Your task to perform on an android device: Go to Google maps Image 0: 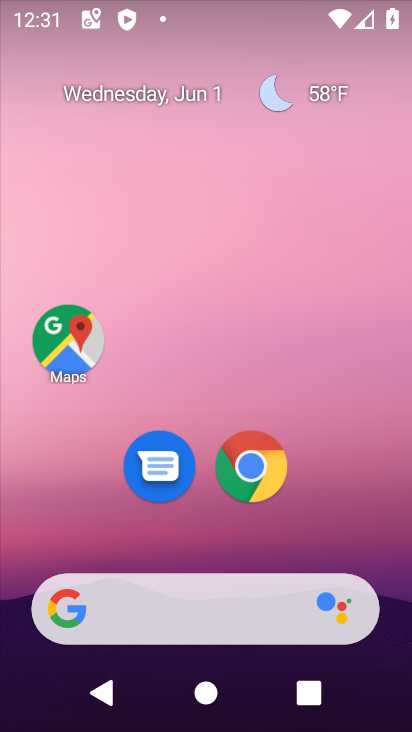
Step 0: click (86, 332)
Your task to perform on an android device: Go to Google maps Image 1: 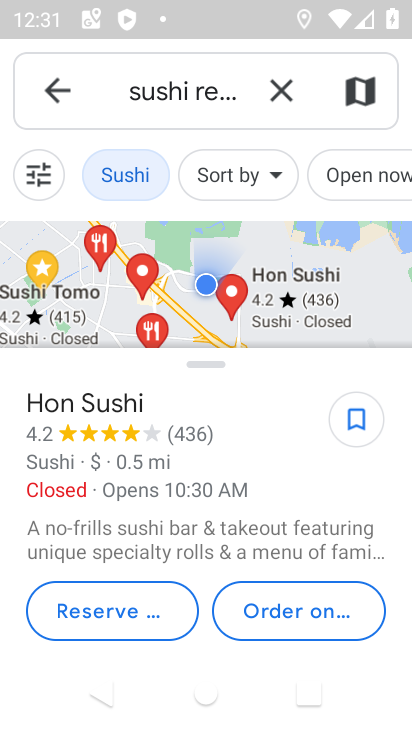
Step 1: task complete